Your task to perform on an android device: Go to CNN.com Image 0: 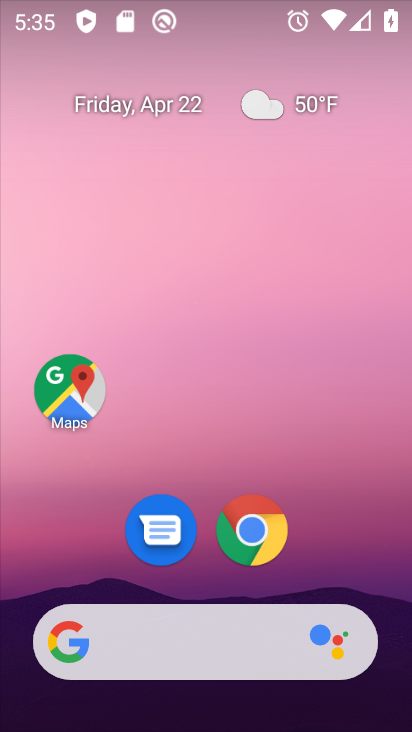
Step 0: drag from (354, 413) to (393, 135)
Your task to perform on an android device: Go to CNN.com Image 1: 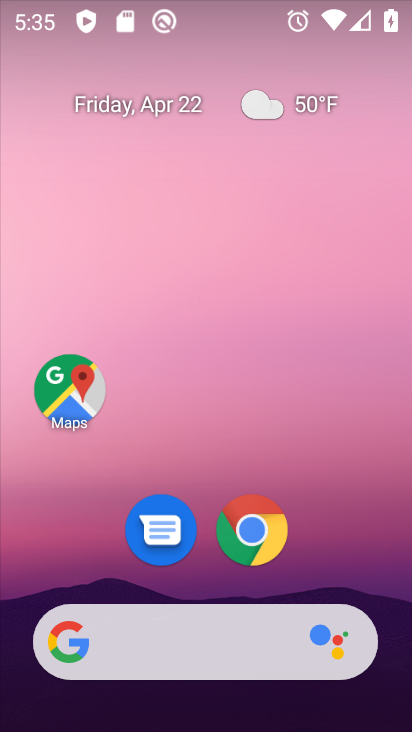
Step 1: drag from (306, 525) to (360, 151)
Your task to perform on an android device: Go to CNN.com Image 2: 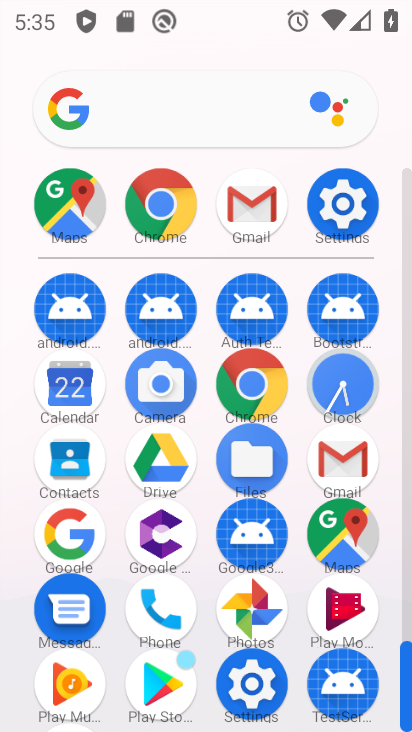
Step 2: click (267, 389)
Your task to perform on an android device: Go to CNN.com Image 3: 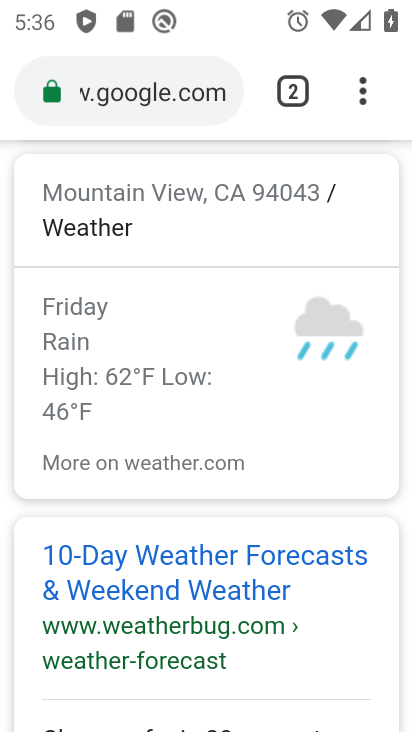
Step 3: click (191, 102)
Your task to perform on an android device: Go to CNN.com Image 4: 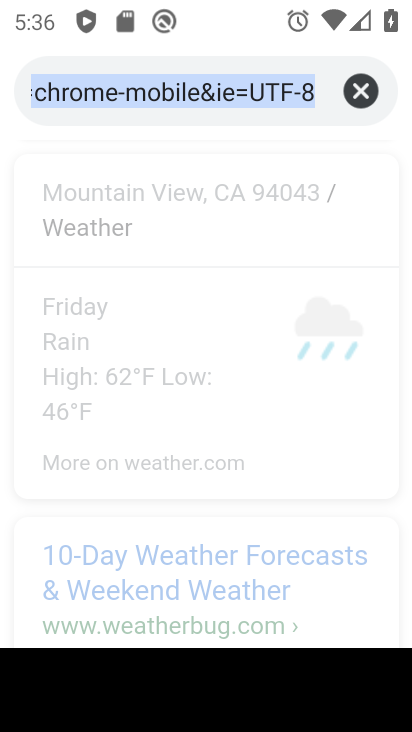
Step 4: click (367, 94)
Your task to perform on an android device: Go to CNN.com Image 5: 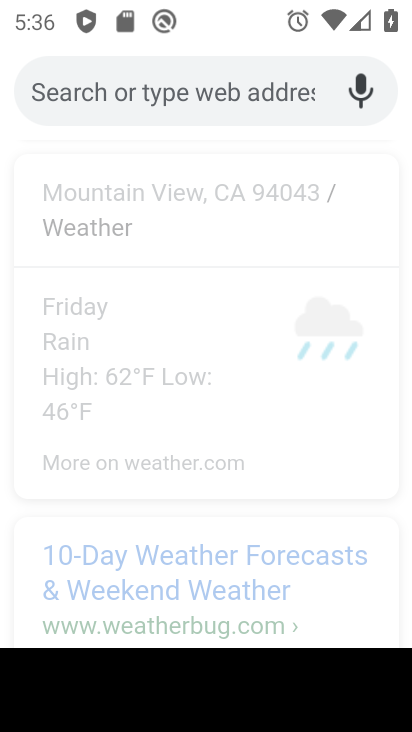
Step 5: type " CNN.com"
Your task to perform on an android device: Go to CNN.com Image 6: 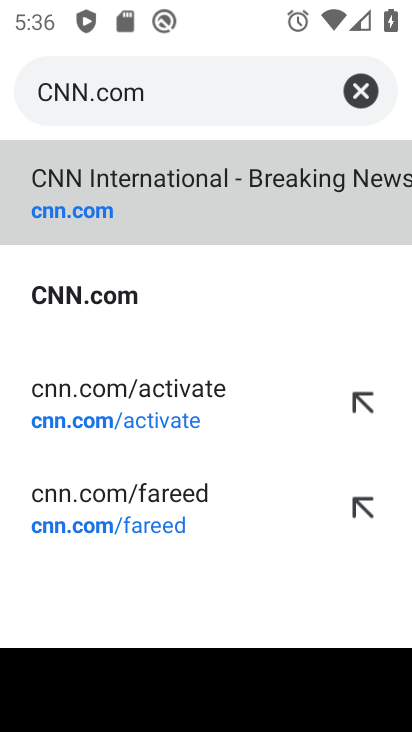
Step 6: click (74, 214)
Your task to perform on an android device: Go to CNN.com Image 7: 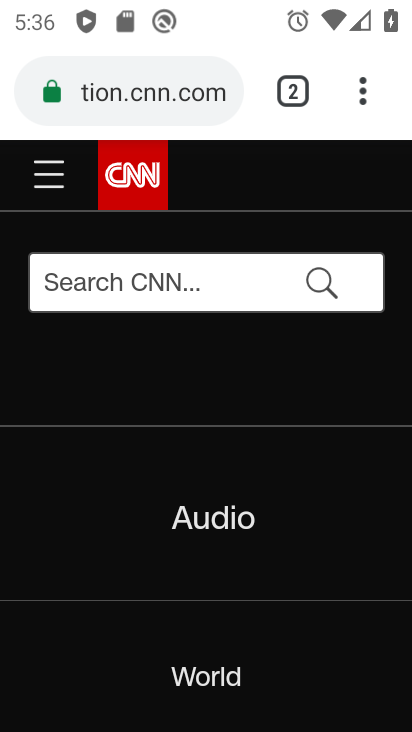
Step 7: task complete